Your task to perform on an android device: Go to Android settings Image 0: 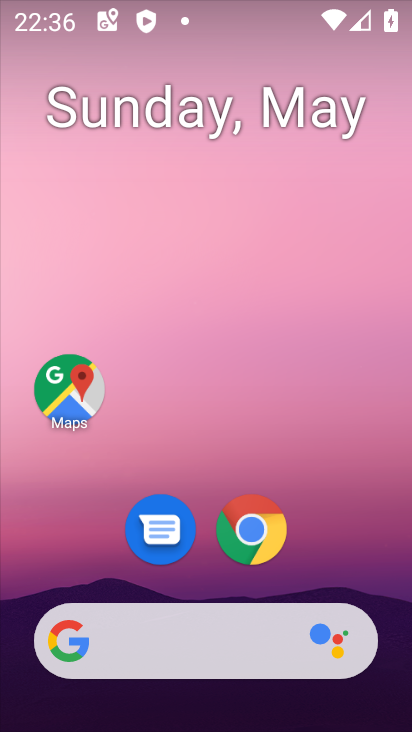
Step 0: drag from (389, 570) to (344, 30)
Your task to perform on an android device: Go to Android settings Image 1: 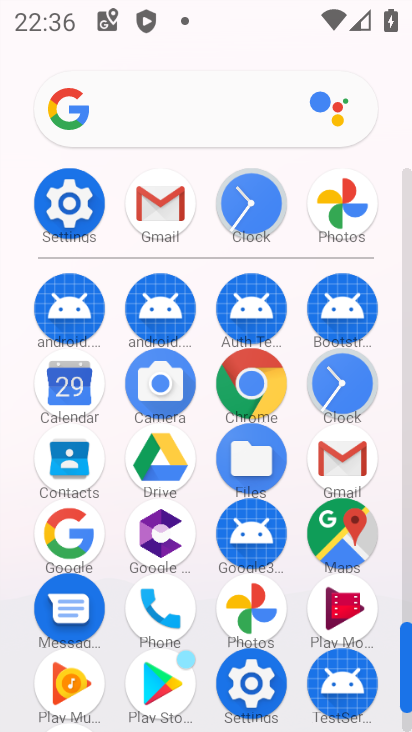
Step 1: click (63, 195)
Your task to perform on an android device: Go to Android settings Image 2: 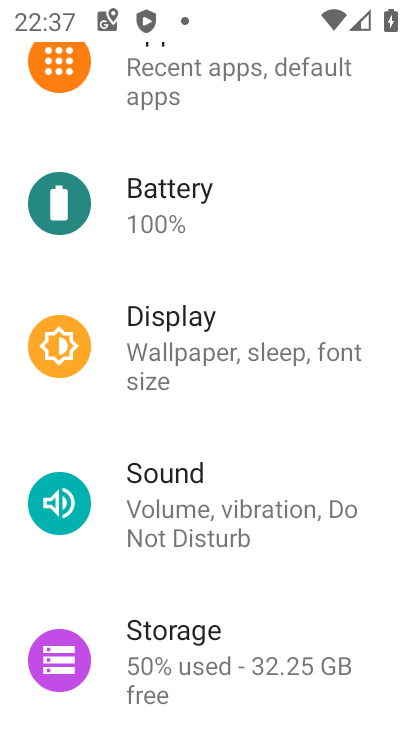
Step 2: task complete